Your task to perform on an android device: turn off priority inbox in the gmail app Image 0: 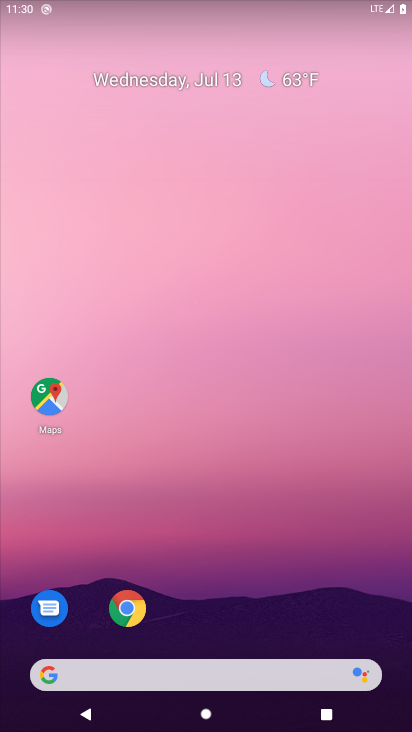
Step 0: press home button
Your task to perform on an android device: turn off priority inbox in the gmail app Image 1: 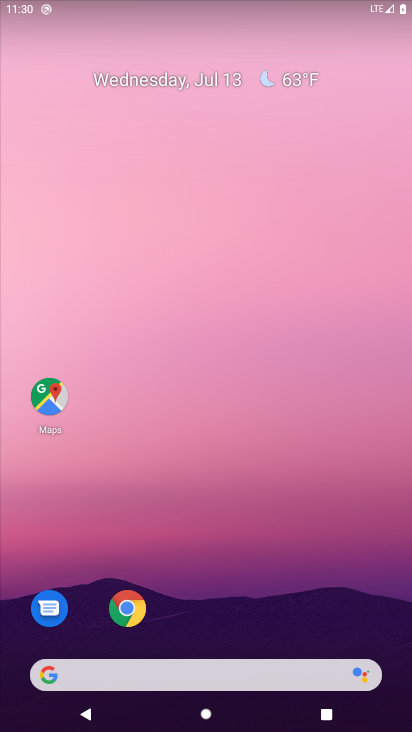
Step 1: drag from (259, 521) to (307, 40)
Your task to perform on an android device: turn off priority inbox in the gmail app Image 2: 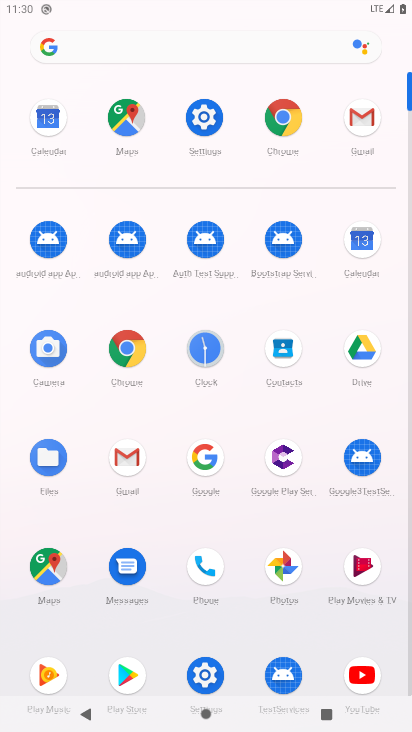
Step 2: click (148, 445)
Your task to perform on an android device: turn off priority inbox in the gmail app Image 3: 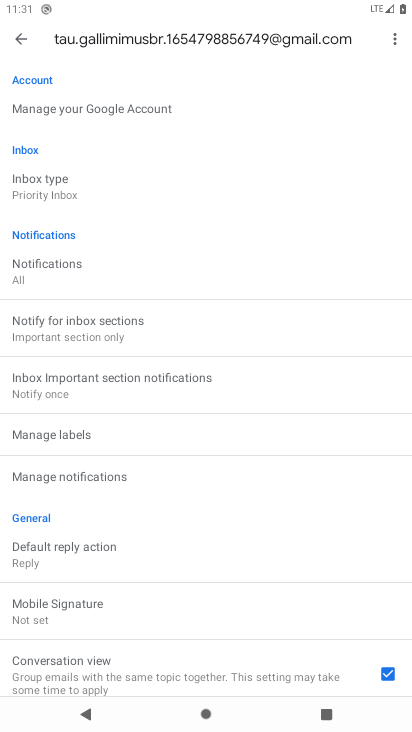
Step 3: click (82, 186)
Your task to perform on an android device: turn off priority inbox in the gmail app Image 4: 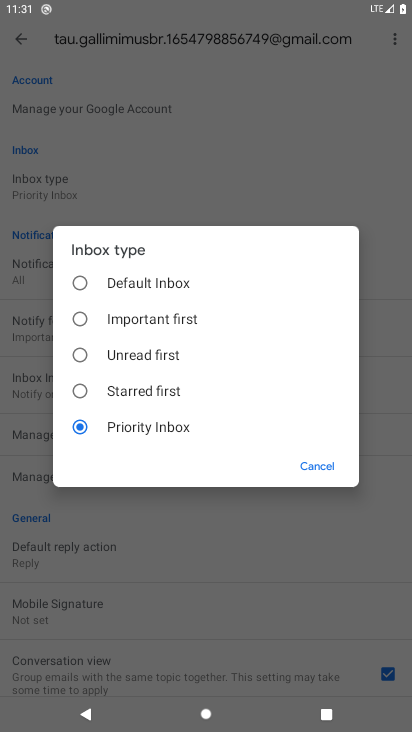
Step 4: click (113, 287)
Your task to perform on an android device: turn off priority inbox in the gmail app Image 5: 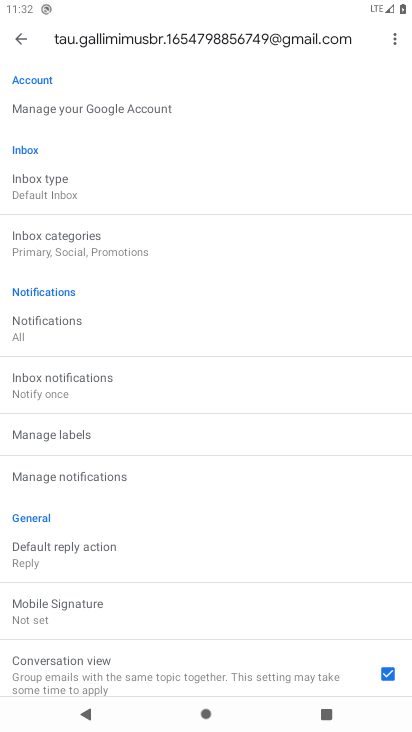
Step 5: task complete